Your task to perform on an android device: Open Google Chrome Image 0: 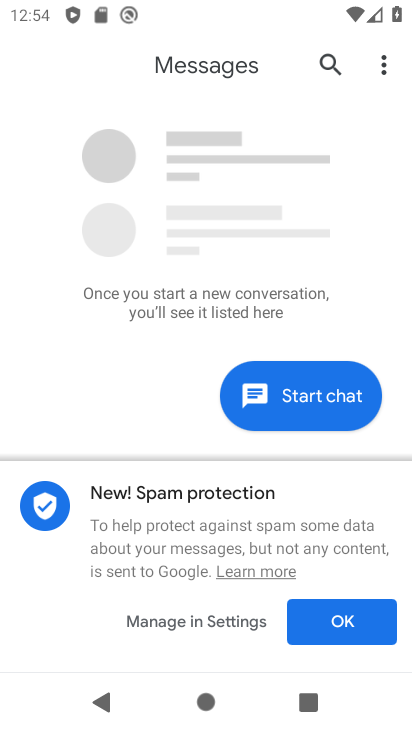
Step 0: press home button
Your task to perform on an android device: Open Google Chrome Image 1: 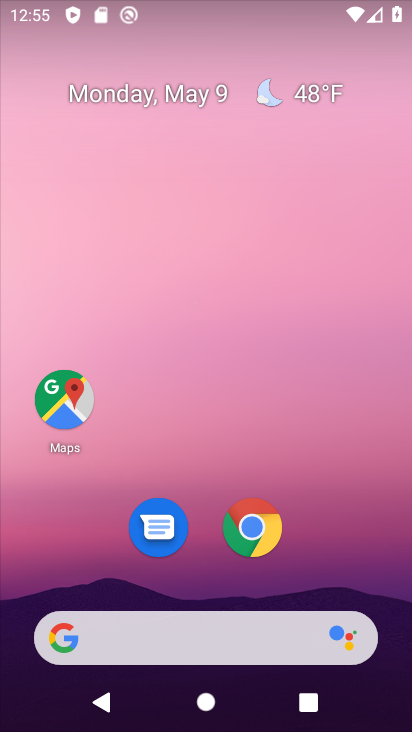
Step 1: click (272, 513)
Your task to perform on an android device: Open Google Chrome Image 2: 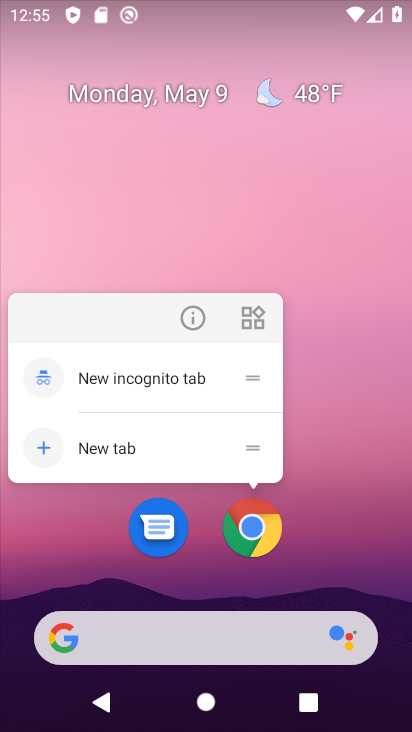
Step 2: click (271, 513)
Your task to perform on an android device: Open Google Chrome Image 3: 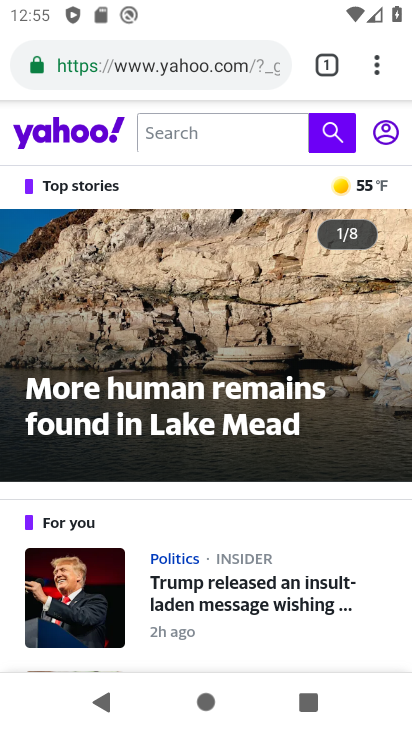
Step 3: task complete